Your task to perform on an android device: set default search engine in the chrome app Image 0: 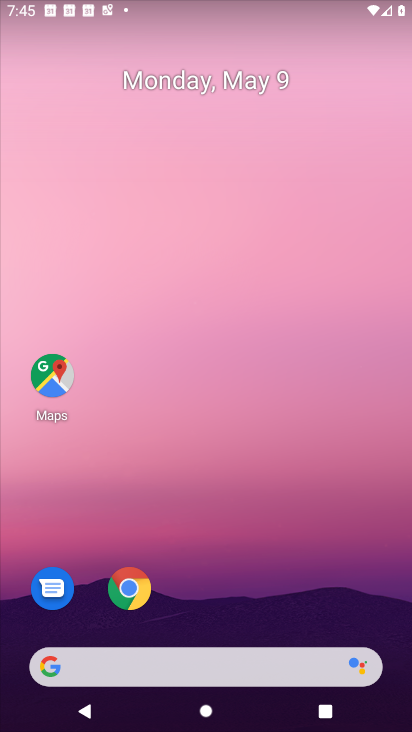
Step 0: drag from (173, 665) to (321, 100)
Your task to perform on an android device: set default search engine in the chrome app Image 1: 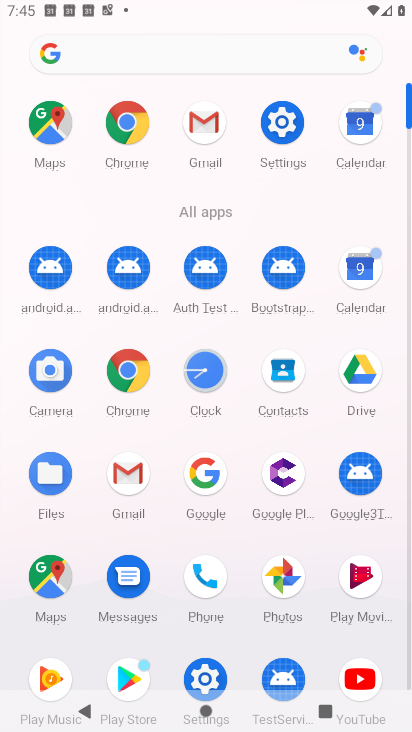
Step 1: click (120, 131)
Your task to perform on an android device: set default search engine in the chrome app Image 2: 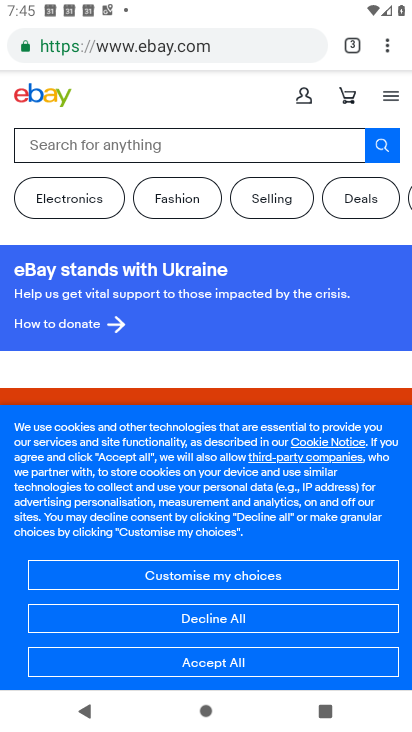
Step 2: drag from (383, 45) to (221, 550)
Your task to perform on an android device: set default search engine in the chrome app Image 3: 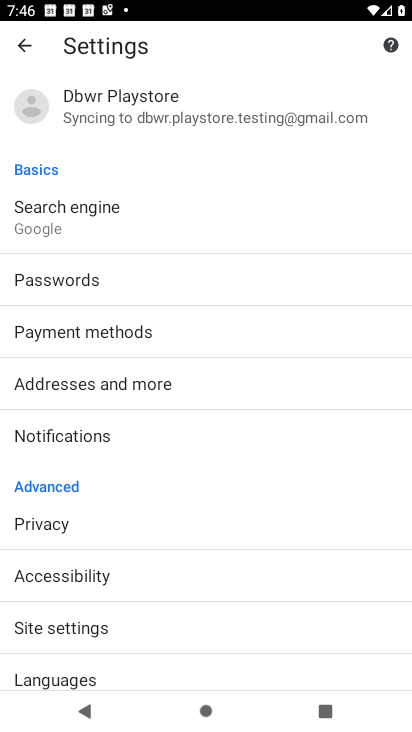
Step 3: click (85, 231)
Your task to perform on an android device: set default search engine in the chrome app Image 4: 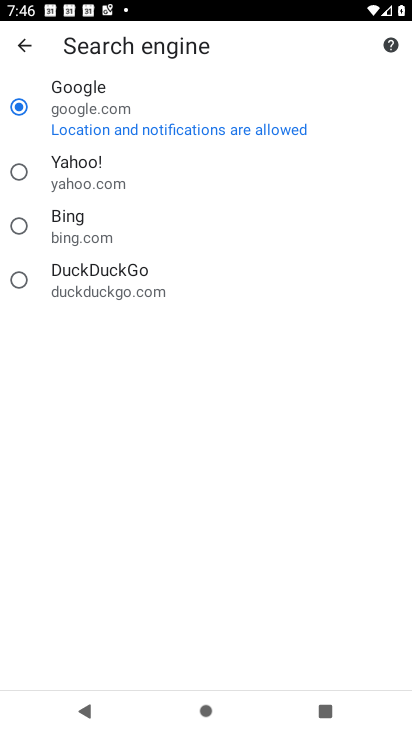
Step 4: click (16, 105)
Your task to perform on an android device: set default search engine in the chrome app Image 5: 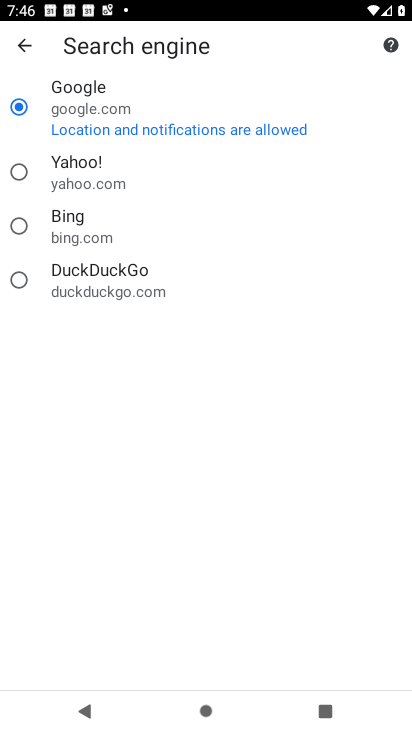
Step 5: task complete